Your task to perform on an android device: open app "Contacts" Image 0: 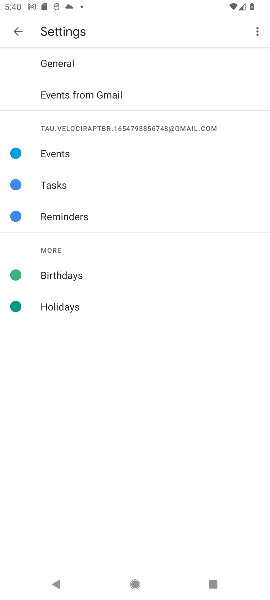
Step 0: press home button
Your task to perform on an android device: open app "Contacts" Image 1: 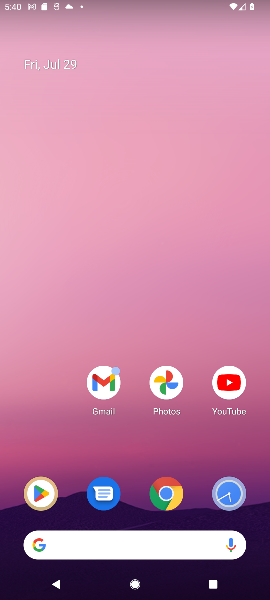
Step 1: drag from (165, 589) to (165, 133)
Your task to perform on an android device: open app "Contacts" Image 2: 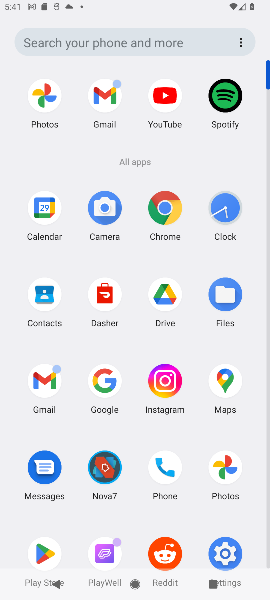
Step 2: click (47, 290)
Your task to perform on an android device: open app "Contacts" Image 3: 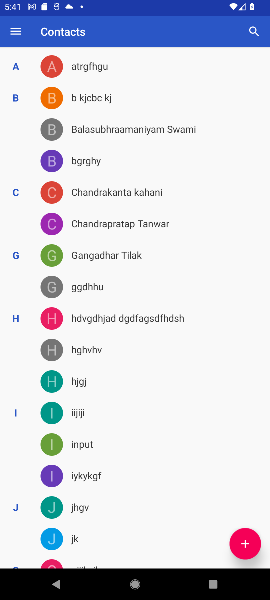
Step 3: task complete